Your task to perform on an android device: Clear the cart on costco.com. Add "bose soundlink" to the cart on costco.com, then select checkout. Image 0: 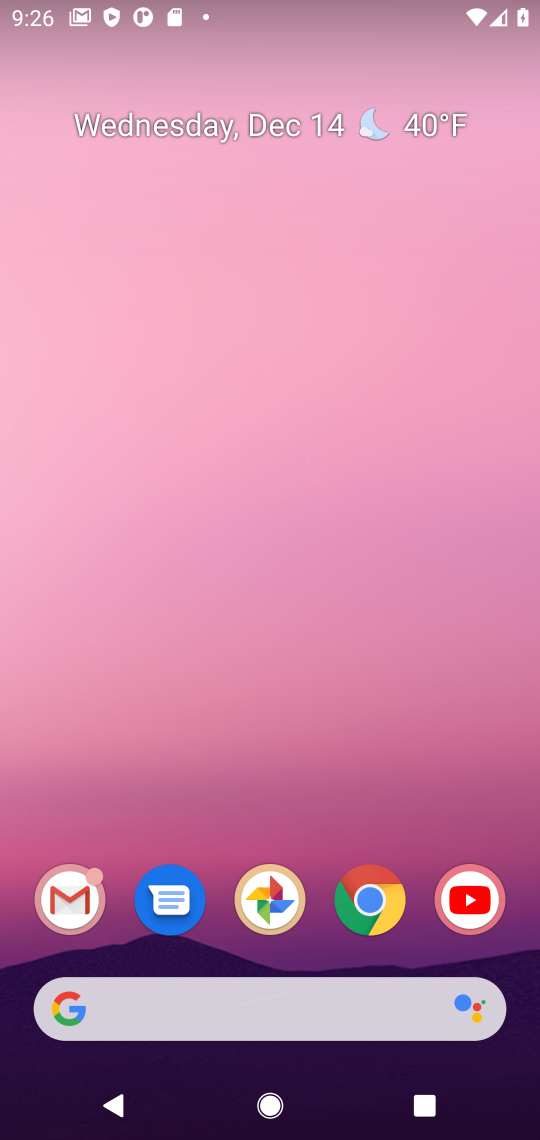
Step 0: click (373, 900)
Your task to perform on an android device: Clear the cart on costco.com. Add "bose soundlink" to the cart on costco.com, then select checkout. Image 1: 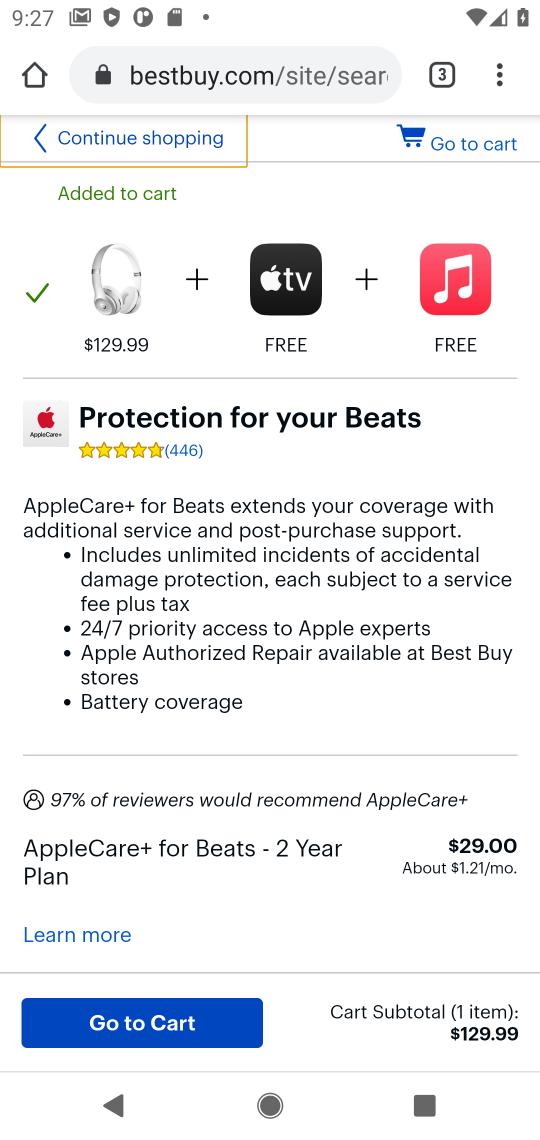
Step 1: click (251, 77)
Your task to perform on an android device: Clear the cart on costco.com. Add "bose soundlink" to the cart on costco.com, then select checkout. Image 2: 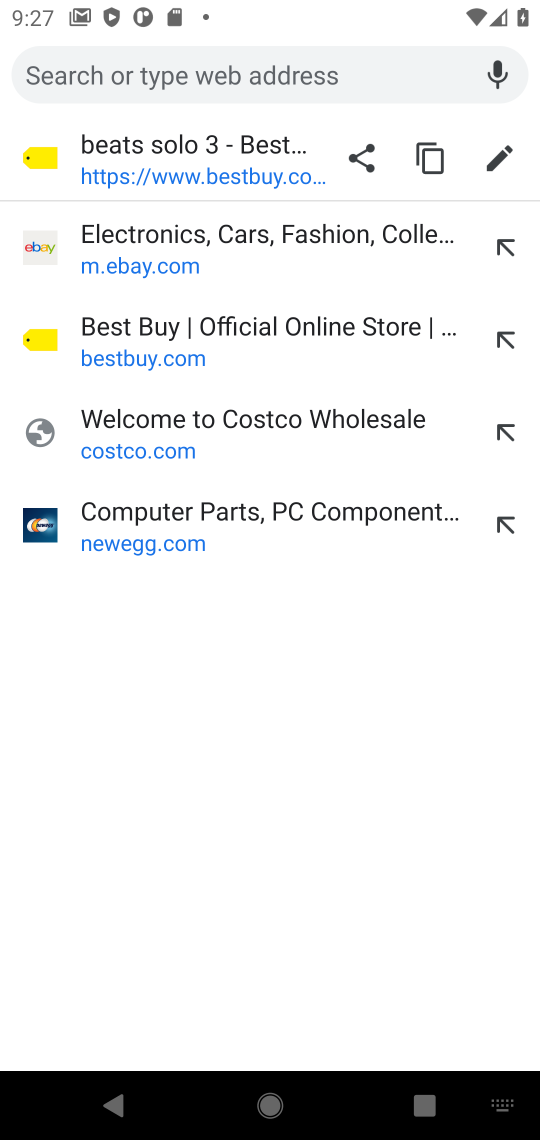
Step 2: click (116, 429)
Your task to perform on an android device: Clear the cart on costco.com. Add "bose soundlink" to the cart on costco.com, then select checkout. Image 3: 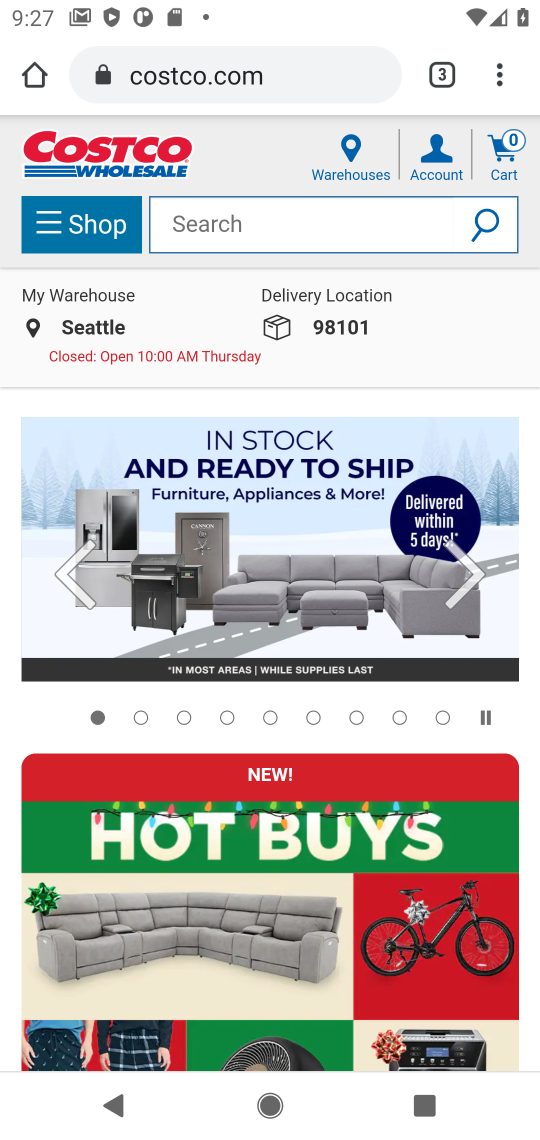
Step 3: click (500, 162)
Your task to perform on an android device: Clear the cart on costco.com. Add "bose soundlink" to the cart on costco.com, then select checkout. Image 4: 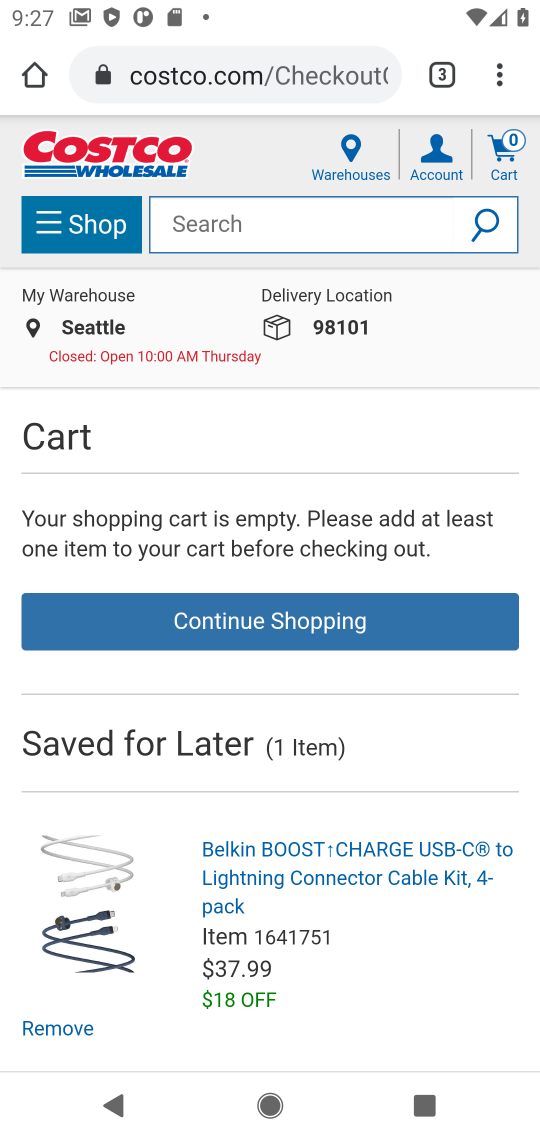
Step 4: click (198, 224)
Your task to perform on an android device: Clear the cart on costco.com. Add "bose soundlink" to the cart on costco.com, then select checkout. Image 5: 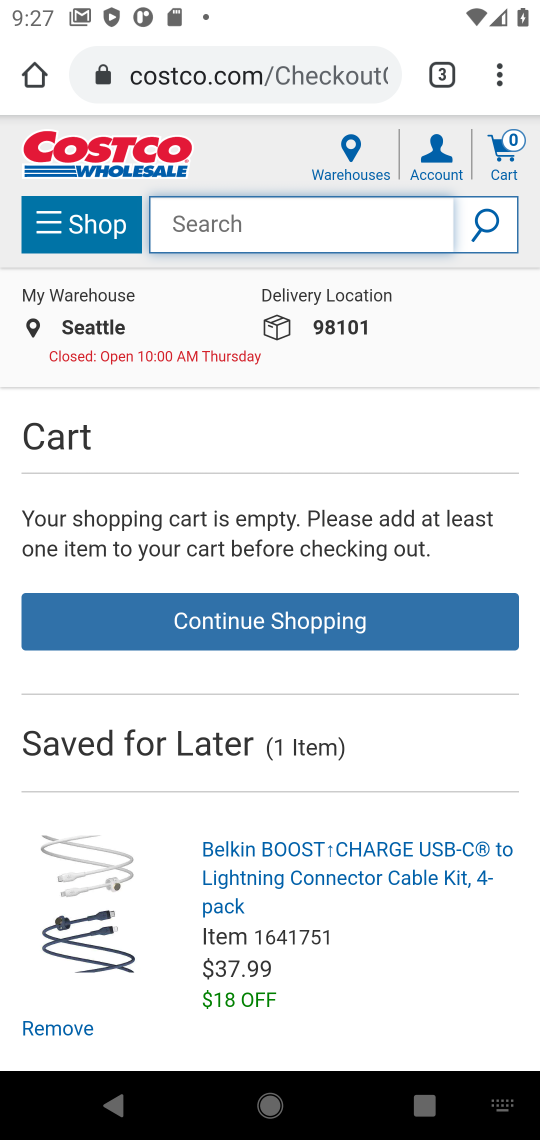
Step 5: type "bose soundlink"
Your task to perform on an android device: Clear the cart on costco.com. Add "bose soundlink" to the cart on costco.com, then select checkout. Image 6: 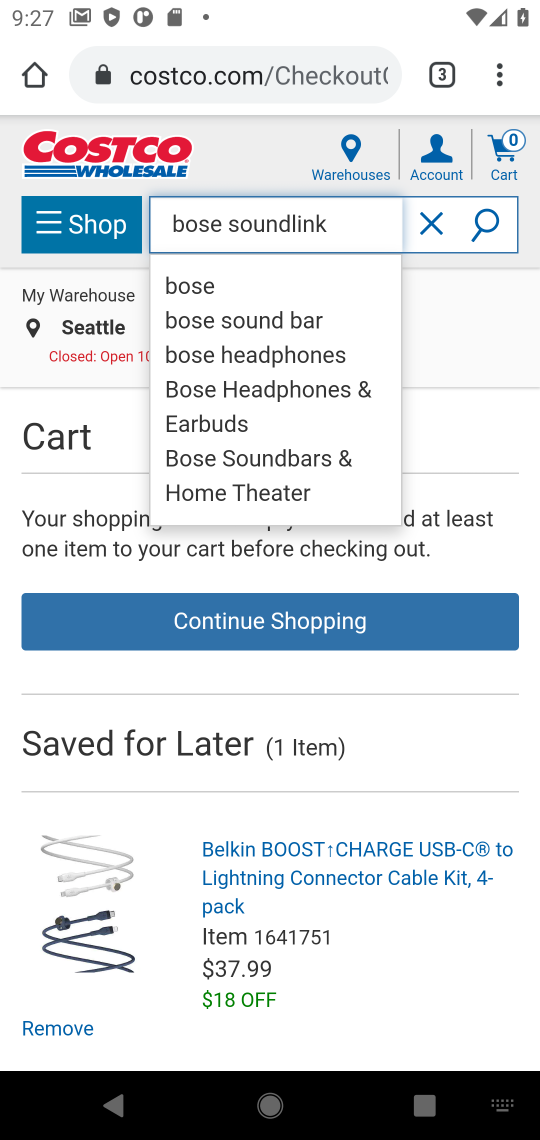
Step 6: click (485, 226)
Your task to perform on an android device: Clear the cart on costco.com. Add "bose soundlink" to the cart on costco.com, then select checkout. Image 7: 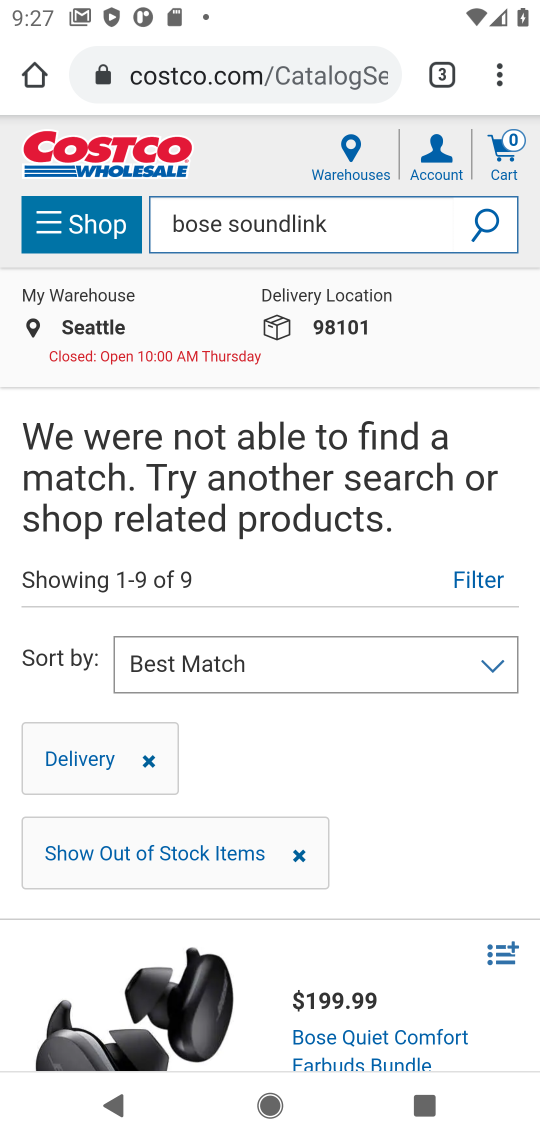
Step 7: task complete